Your task to perform on an android device: Open settings on Google Maps Image 0: 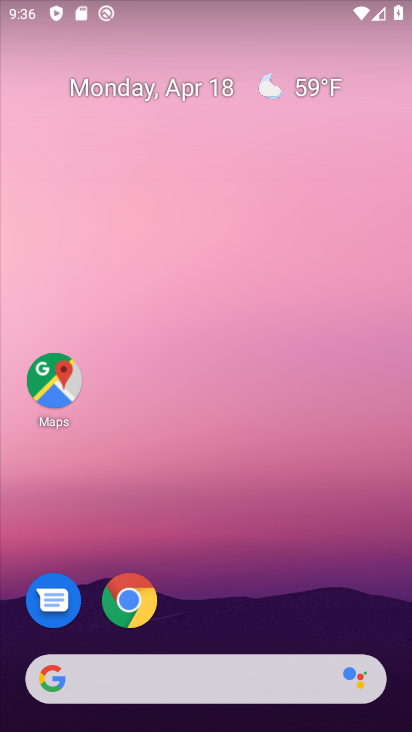
Step 0: click (44, 377)
Your task to perform on an android device: Open settings on Google Maps Image 1: 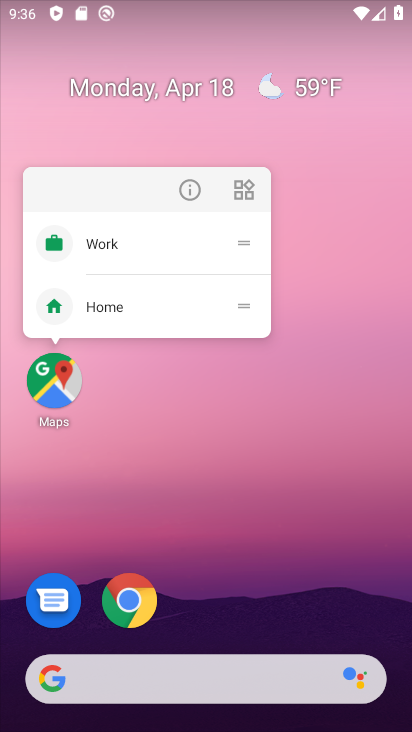
Step 1: click (44, 377)
Your task to perform on an android device: Open settings on Google Maps Image 2: 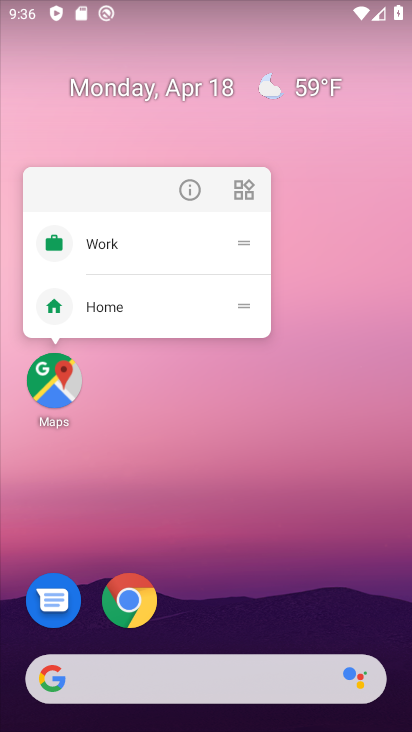
Step 2: click (40, 392)
Your task to perform on an android device: Open settings on Google Maps Image 3: 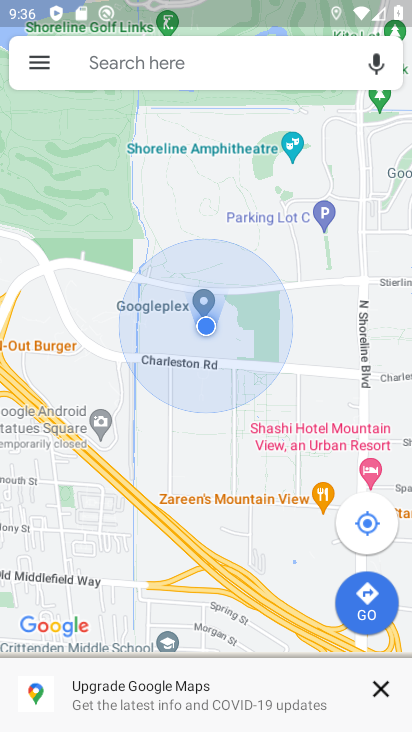
Step 3: click (33, 57)
Your task to perform on an android device: Open settings on Google Maps Image 4: 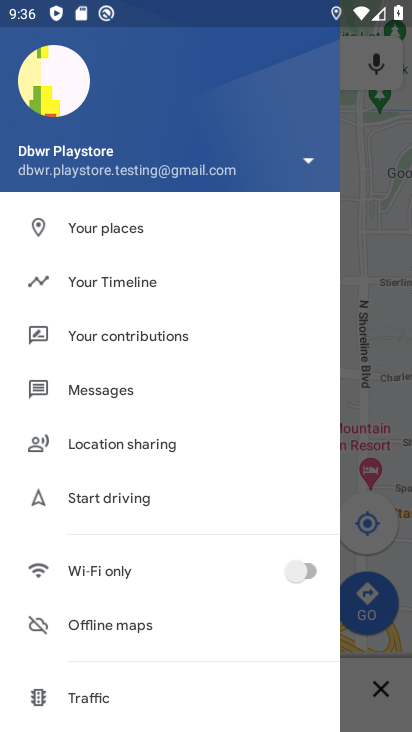
Step 4: drag from (112, 652) to (184, 140)
Your task to perform on an android device: Open settings on Google Maps Image 5: 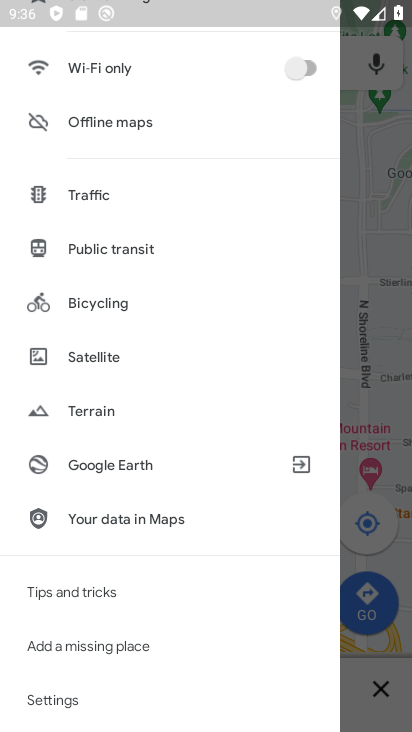
Step 5: click (55, 705)
Your task to perform on an android device: Open settings on Google Maps Image 6: 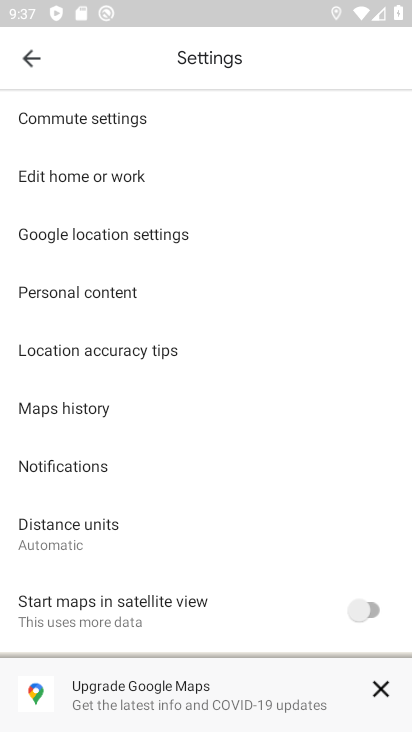
Step 6: task complete